Your task to perform on an android device: search for starred emails in the gmail app Image 0: 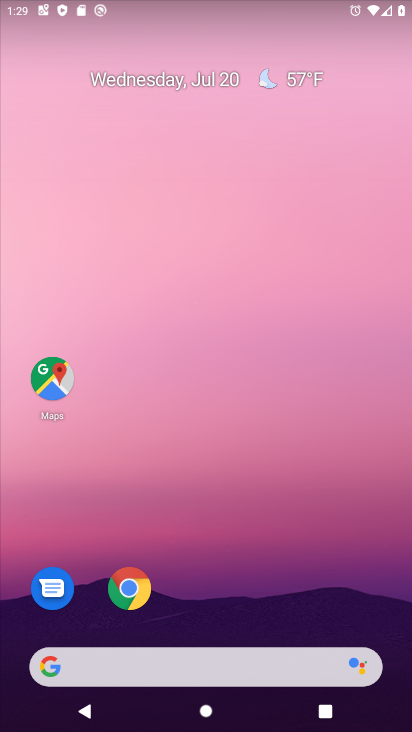
Step 0: drag from (68, 499) to (206, 125)
Your task to perform on an android device: search for starred emails in the gmail app Image 1: 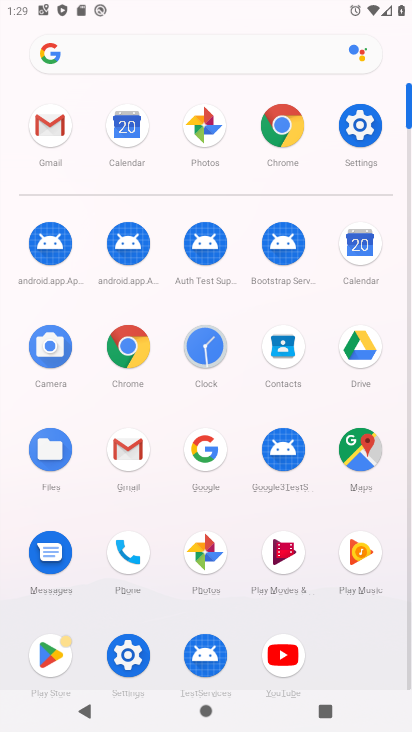
Step 1: click (131, 444)
Your task to perform on an android device: search for starred emails in the gmail app Image 2: 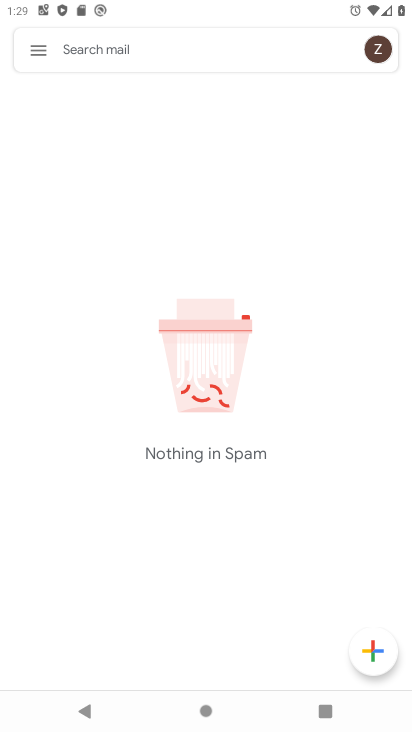
Step 2: click (36, 47)
Your task to perform on an android device: search for starred emails in the gmail app Image 3: 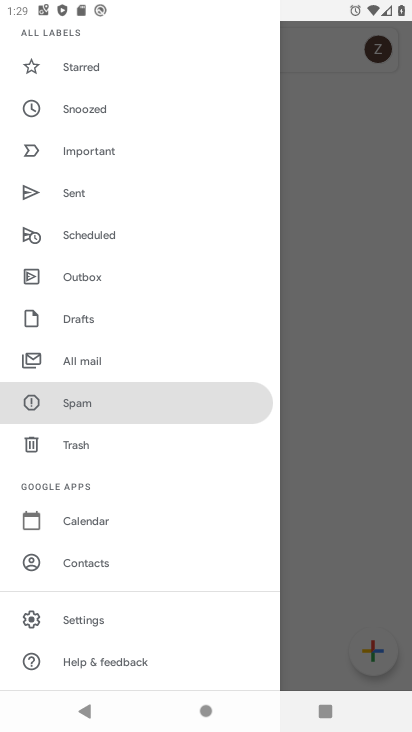
Step 3: click (86, 58)
Your task to perform on an android device: search for starred emails in the gmail app Image 4: 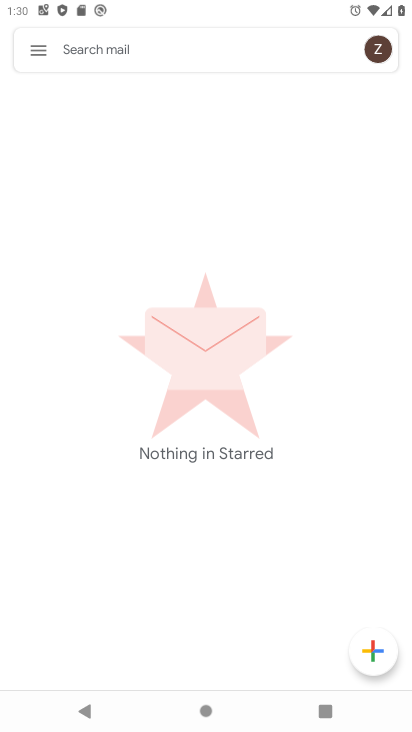
Step 4: task complete